Your task to perform on an android device: allow cookies in the chrome app Image 0: 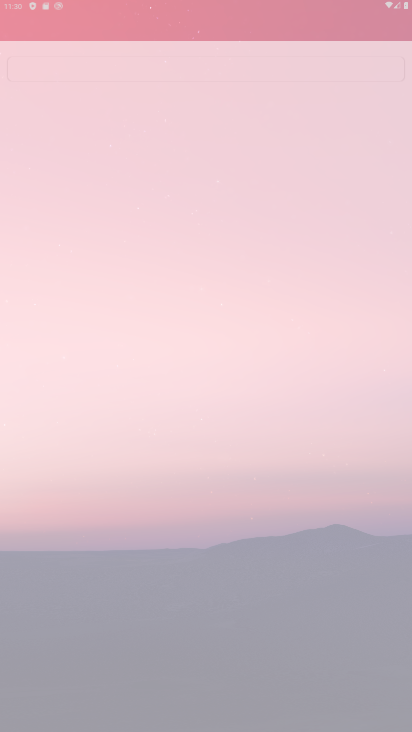
Step 0: press home button
Your task to perform on an android device: allow cookies in the chrome app Image 1: 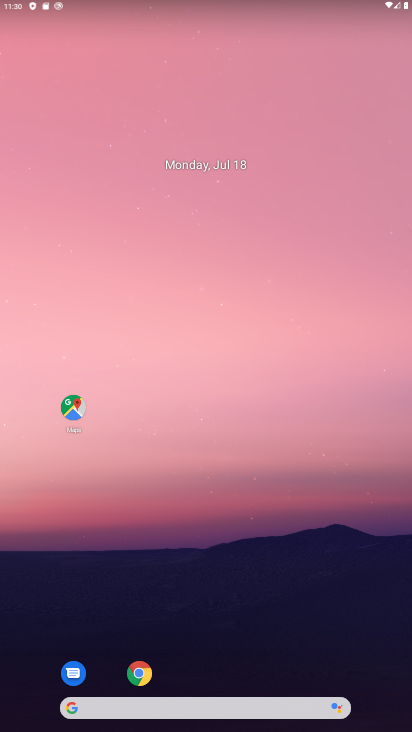
Step 1: click (139, 666)
Your task to perform on an android device: allow cookies in the chrome app Image 2: 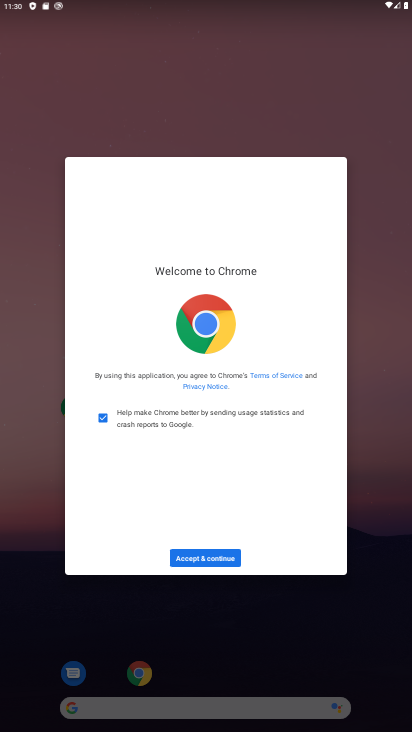
Step 2: click (206, 553)
Your task to perform on an android device: allow cookies in the chrome app Image 3: 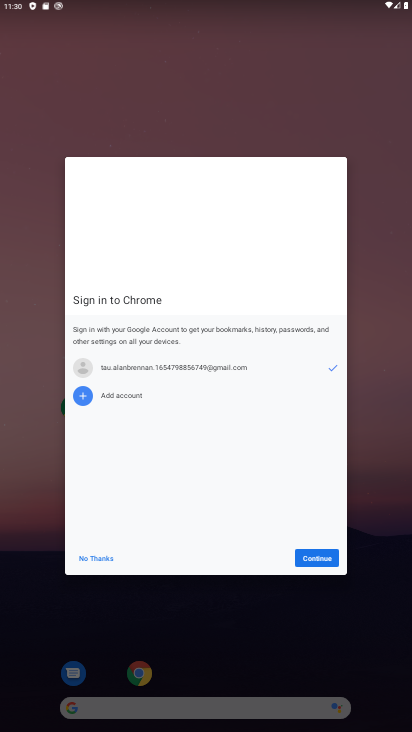
Step 3: click (321, 547)
Your task to perform on an android device: allow cookies in the chrome app Image 4: 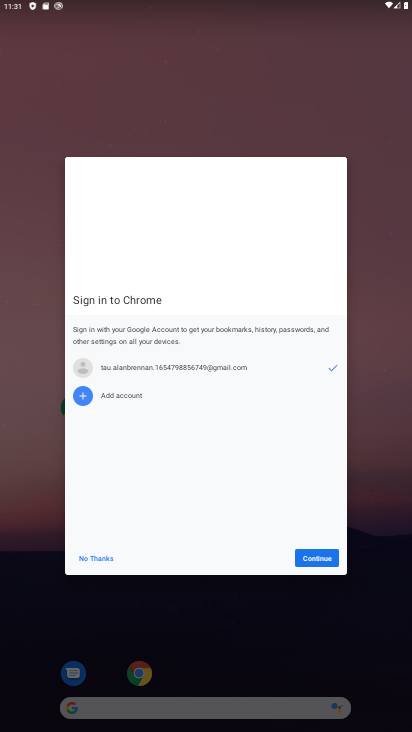
Step 4: click (320, 555)
Your task to perform on an android device: allow cookies in the chrome app Image 5: 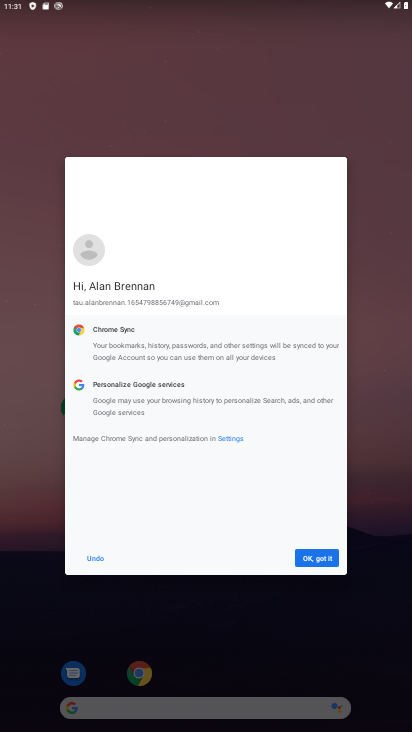
Step 5: click (320, 555)
Your task to perform on an android device: allow cookies in the chrome app Image 6: 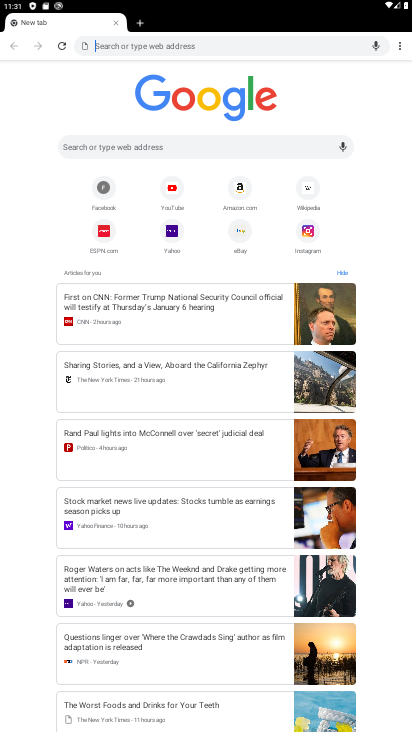
Step 6: click (396, 45)
Your task to perform on an android device: allow cookies in the chrome app Image 7: 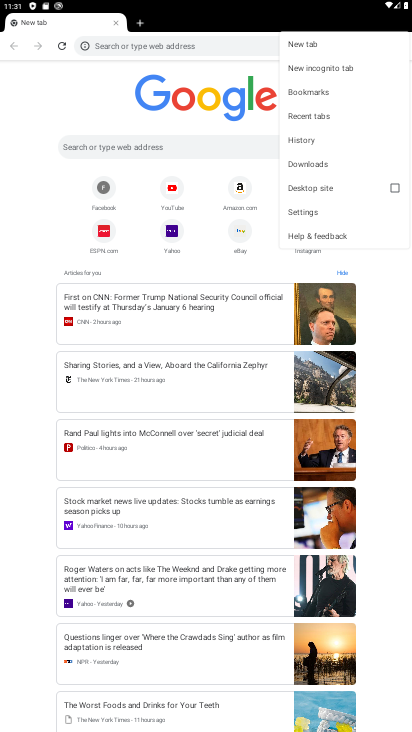
Step 7: click (319, 217)
Your task to perform on an android device: allow cookies in the chrome app Image 8: 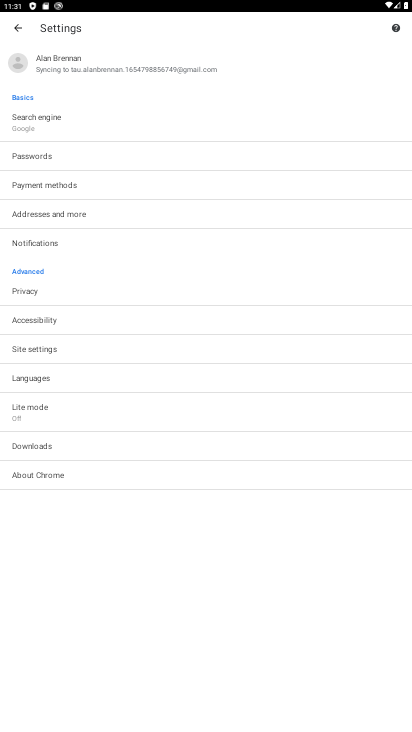
Step 8: click (61, 351)
Your task to perform on an android device: allow cookies in the chrome app Image 9: 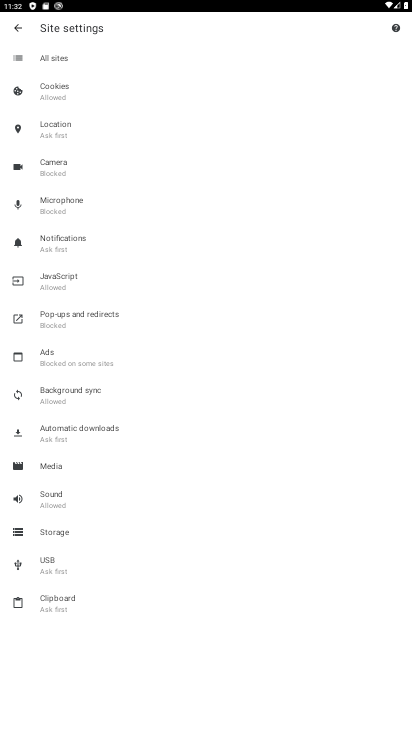
Step 9: click (79, 89)
Your task to perform on an android device: allow cookies in the chrome app Image 10: 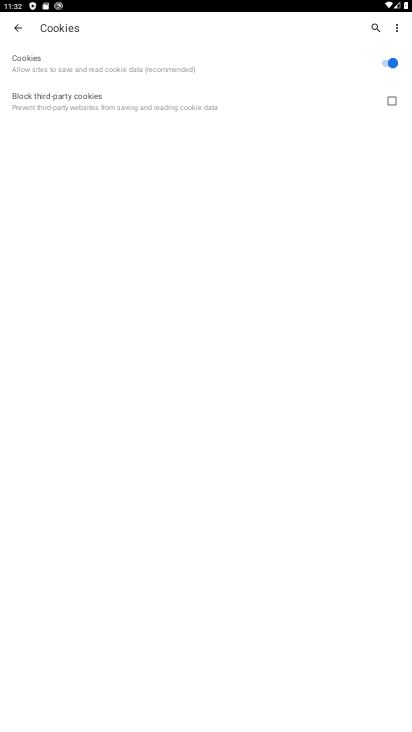
Step 10: task complete